Your task to perform on an android device: choose inbox layout in the gmail app Image 0: 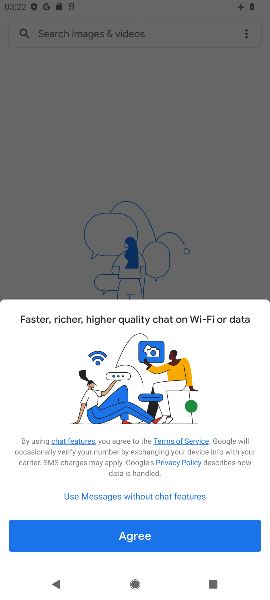
Step 0: press home button
Your task to perform on an android device: choose inbox layout in the gmail app Image 1: 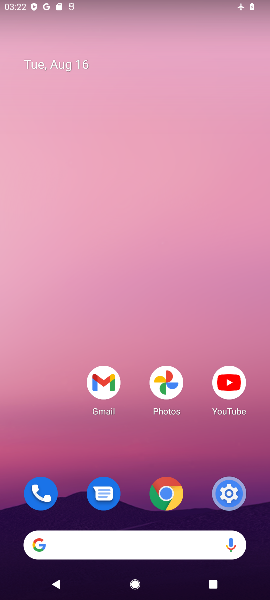
Step 1: drag from (68, 461) to (80, 160)
Your task to perform on an android device: choose inbox layout in the gmail app Image 2: 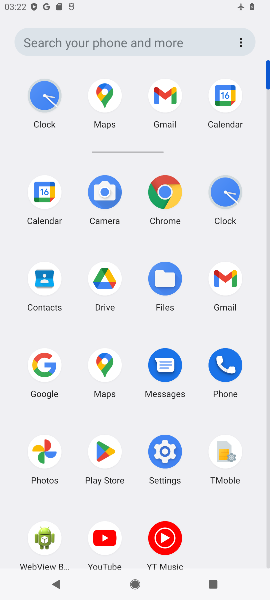
Step 2: click (228, 287)
Your task to perform on an android device: choose inbox layout in the gmail app Image 3: 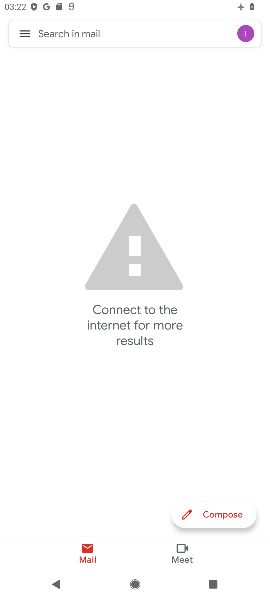
Step 3: click (23, 32)
Your task to perform on an android device: choose inbox layout in the gmail app Image 4: 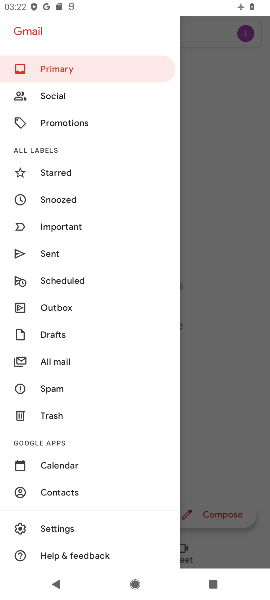
Step 4: drag from (129, 338) to (144, 135)
Your task to perform on an android device: choose inbox layout in the gmail app Image 5: 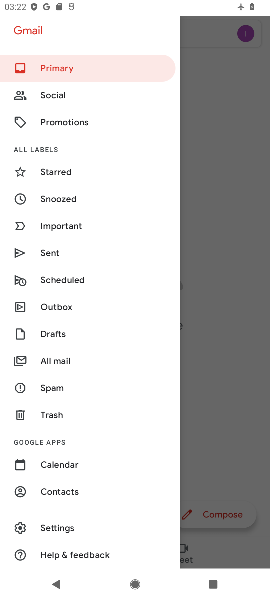
Step 5: click (71, 527)
Your task to perform on an android device: choose inbox layout in the gmail app Image 6: 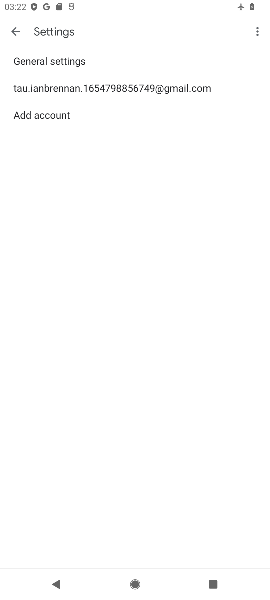
Step 6: click (159, 84)
Your task to perform on an android device: choose inbox layout in the gmail app Image 7: 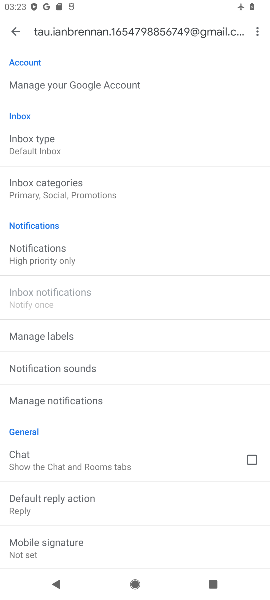
Step 7: drag from (165, 454) to (170, 336)
Your task to perform on an android device: choose inbox layout in the gmail app Image 8: 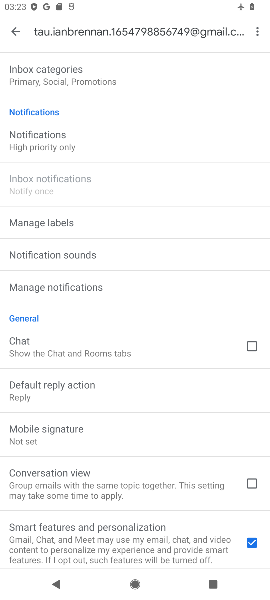
Step 8: drag from (179, 109) to (179, 316)
Your task to perform on an android device: choose inbox layout in the gmail app Image 9: 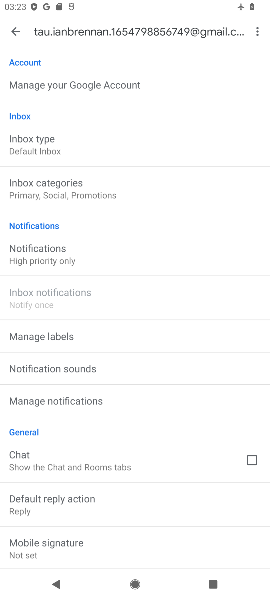
Step 9: click (59, 152)
Your task to perform on an android device: choose inbox layout in the gmail app Image 10: 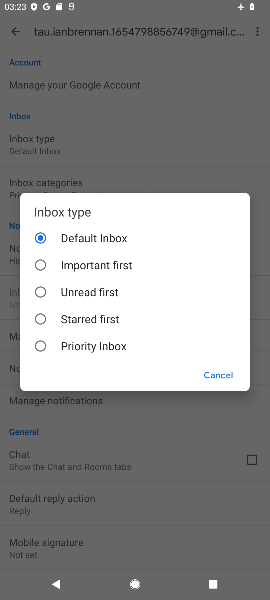
Step 10: click (112, 284)
Your task to perform on an android device: choose inbox layout in the gmail app Image 11: 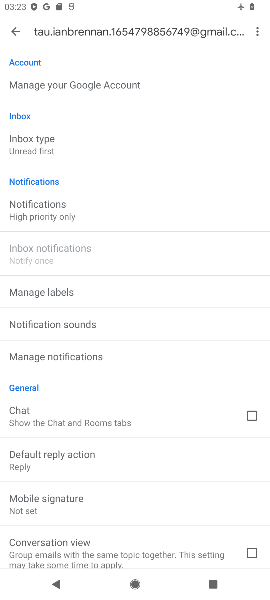
Step 11: task complete